Your task to perform on an android device: check data usage Image 0: 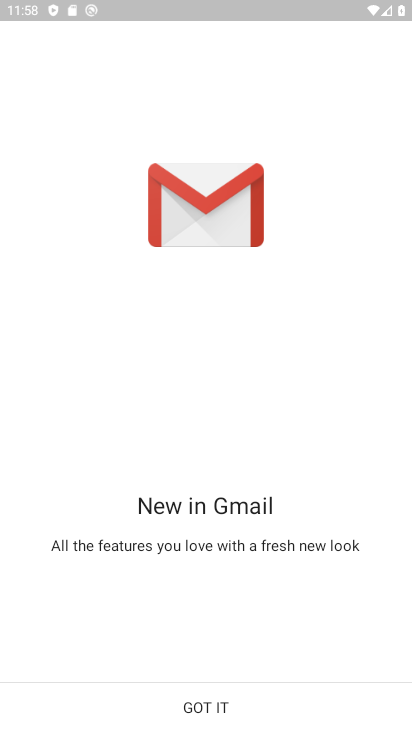
Step 0: press home button
Your task to perform on an android device: check data usage Image 1: 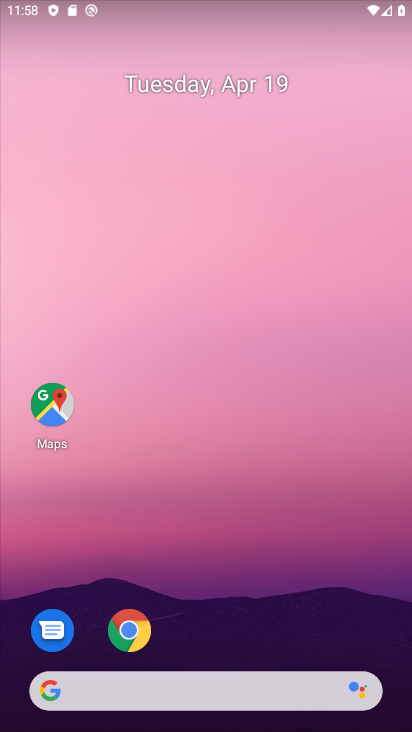
Step 1: drag from (197, 687) to (345, 79)
Your task to perform on an android device: check data usage Image 2: 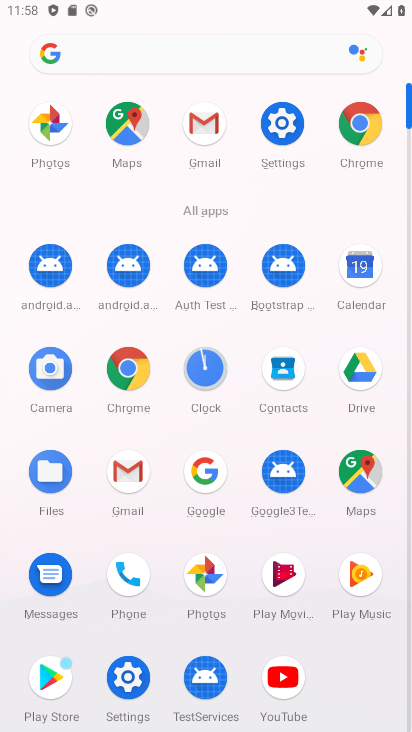
Step 2: click (280, 128)
Your task to perform on an android device: check data usage Image 3: 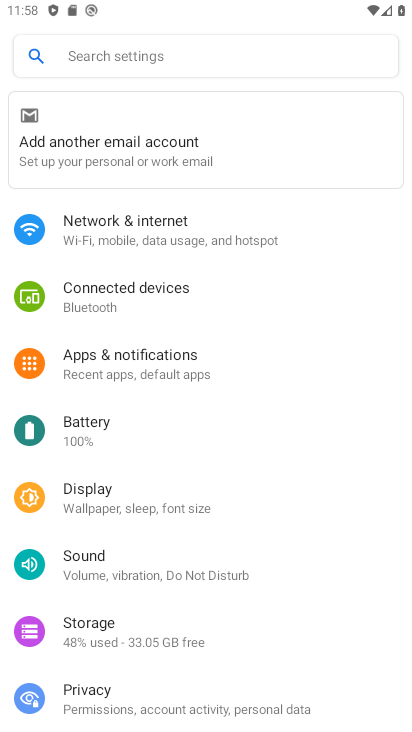
Step 3: click (182, 228)
Your task to perform on an android device: check data usage Image 4: 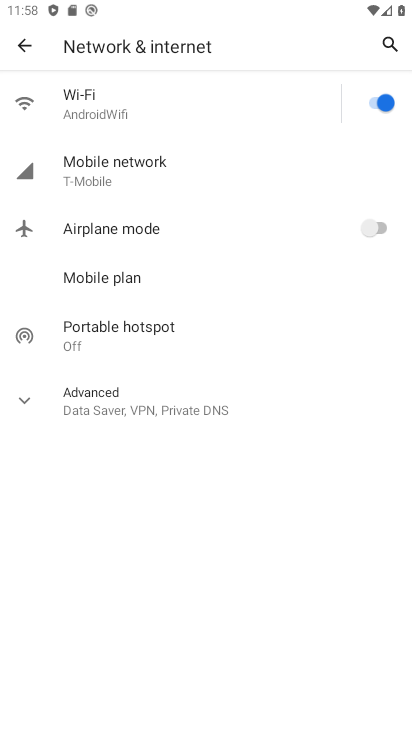
Step 4: click (239, 102)
Your task to perform on an android device: check data usage Image 5: 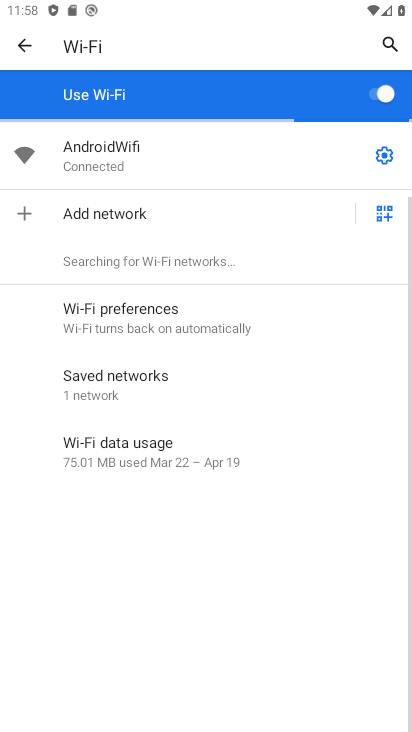
Step 5: click (163, 446)
Your task to perform on an android device: check data usage Image 6: 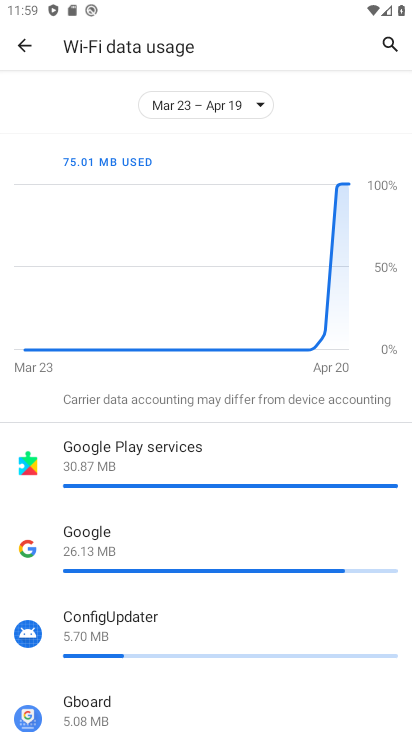
Step 6: task complete